Your task to perform on an android device: Find coffee shops on Maps Image 0: 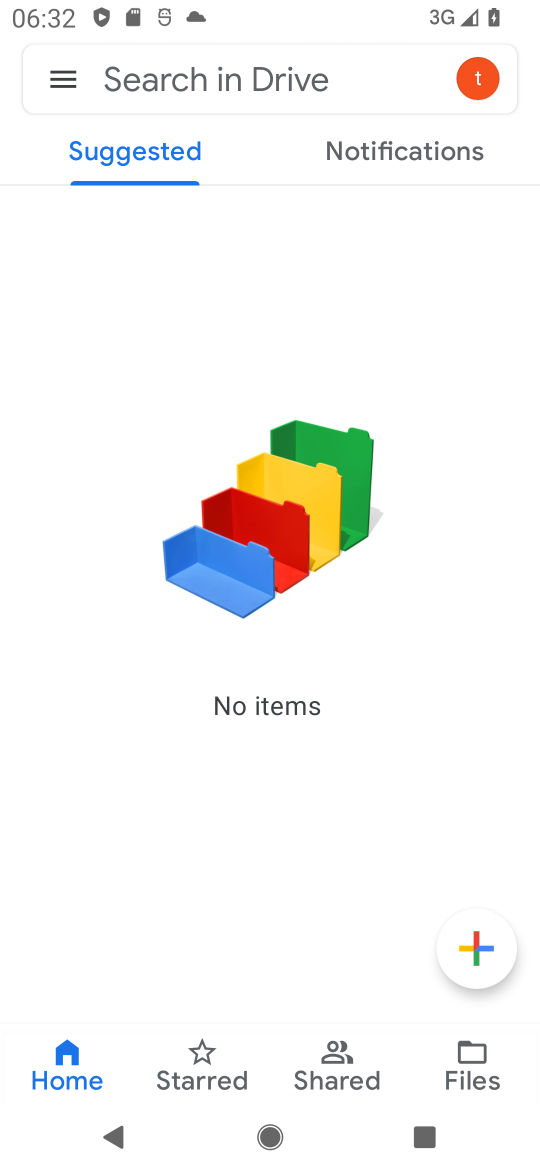
Step 0: press home button
Your task to perform on an android device: Find coffee shops on Maps Image 1: 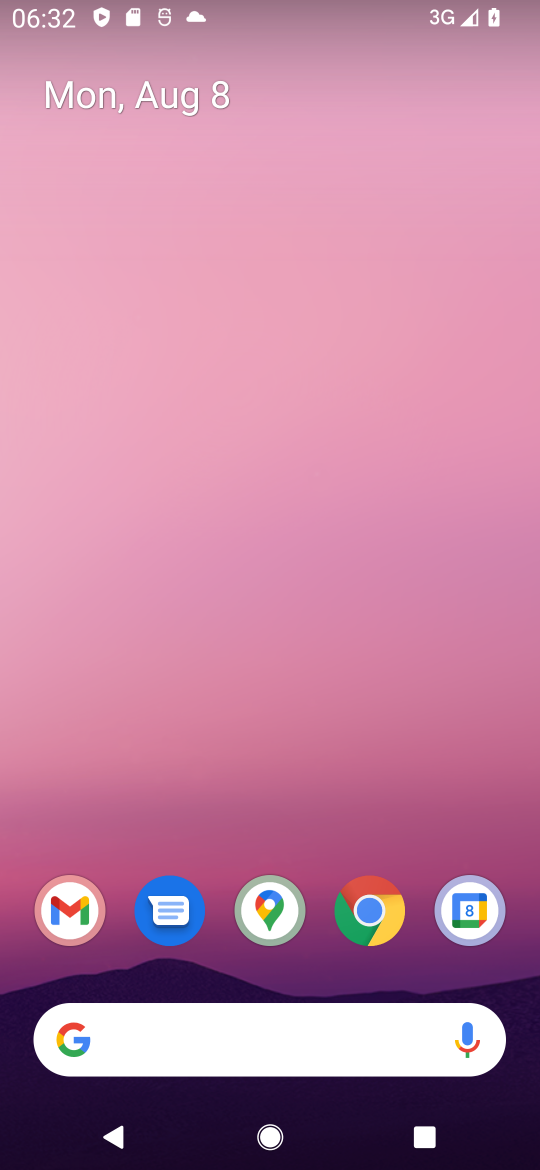
Step 1: click (267, 902)
Your task to perform on an android device: Find coffee shops on Maps Image 2: 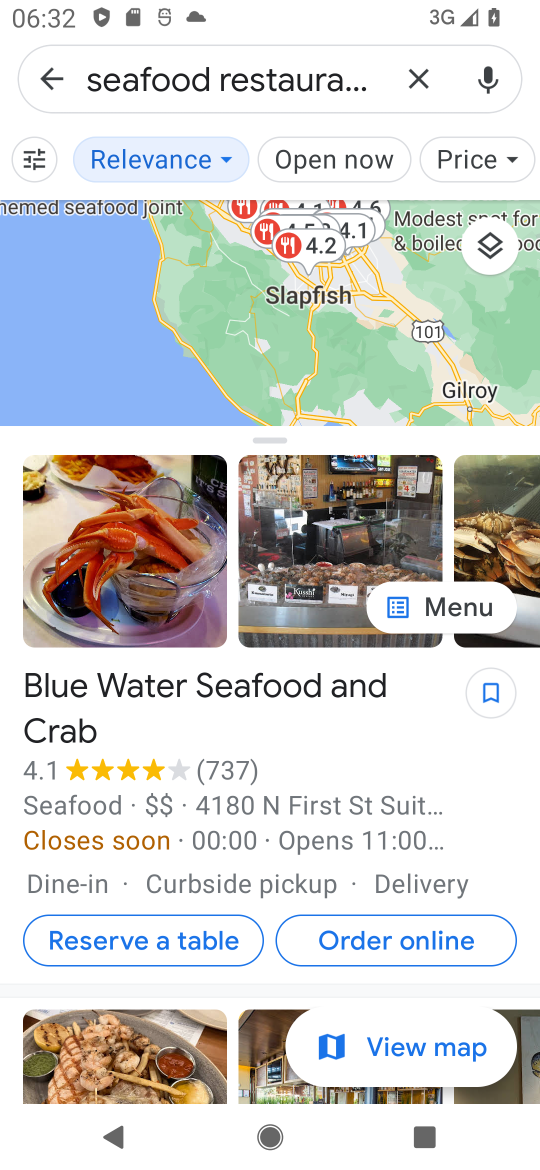
Step 2: click (413, 84)
Your task to perform on an android device: Find coffee shops on Maps Image 3: 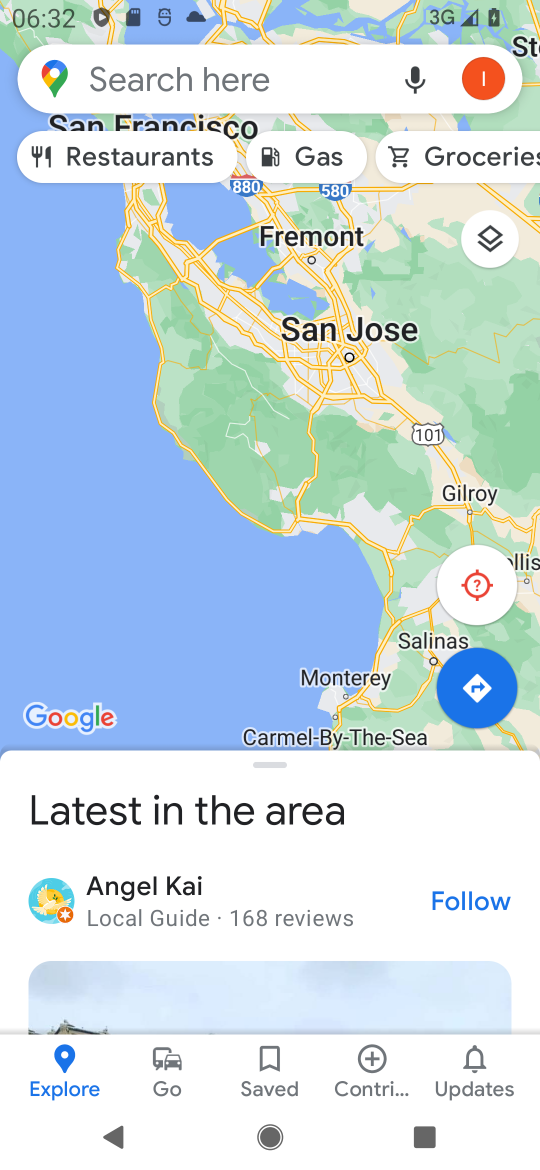
Step 3: click (253, 73)
Your task to perform on an android device: Find coffee shops on Maps Image 4: 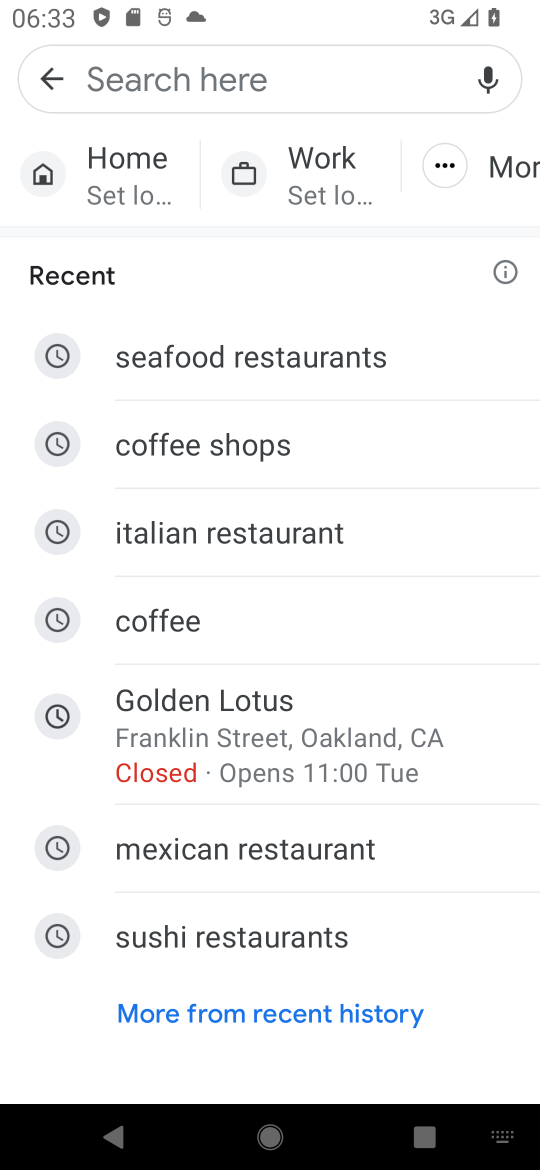
Step 4: type "coffee shops"
Your task to perform on an android device: Find coffee shops on Maps Image 5: 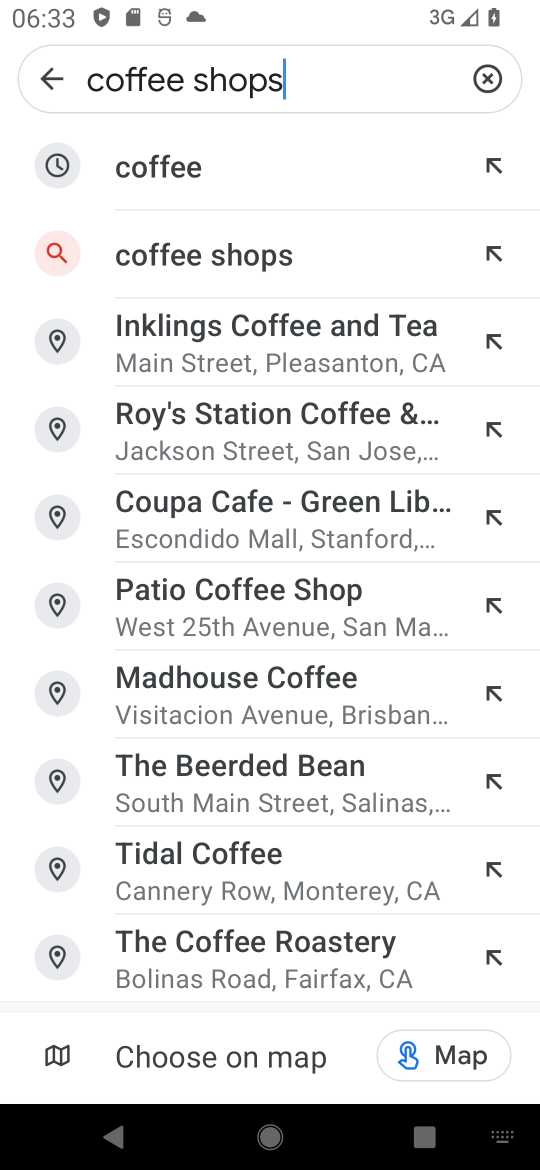
Step 5: click (241, 257)
Your task to perform on an android device: Find coffee shops on Maps Image 6: 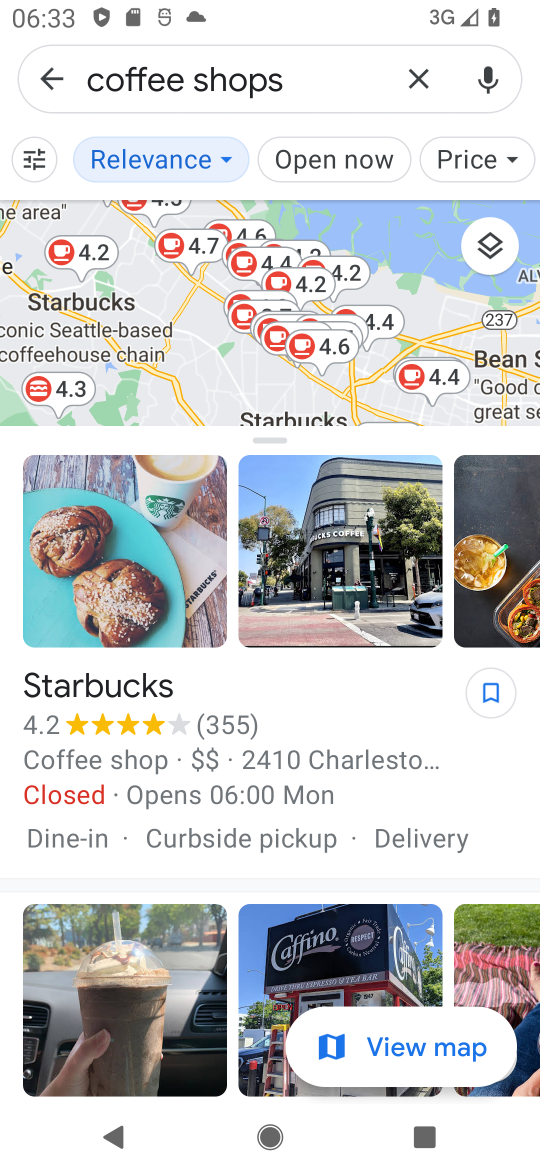
Step 6: task complete